Your task to perform on an android device: What's the weather going to be this weekend? Image 0: 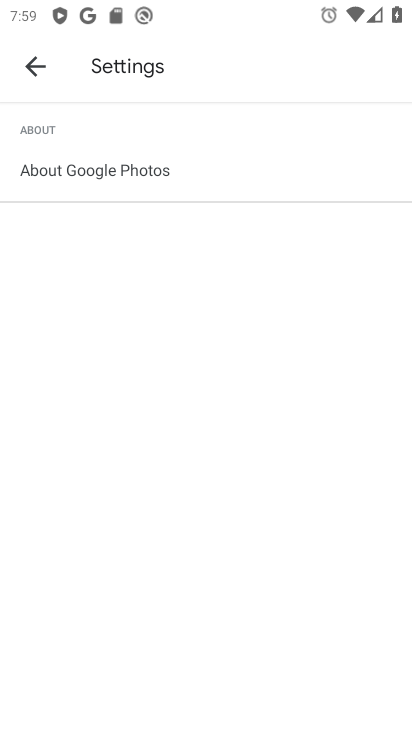
Step 0: press home button
Your task to perform on an android device: What's the weather going to be this weekend? Image 1: 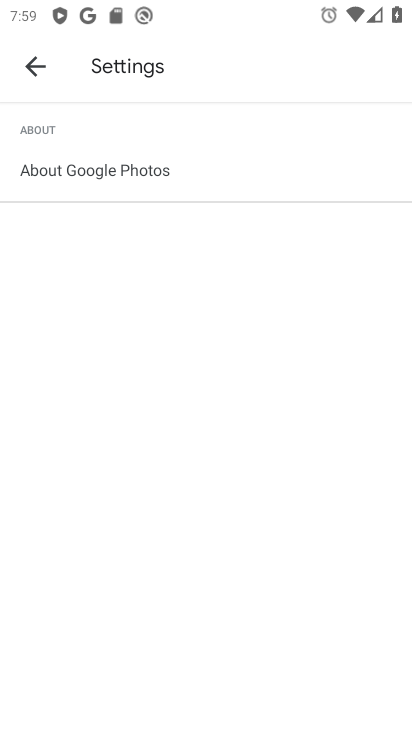
Step 1: press home button
Your task to perform on an android device: What's the weather going to be this weekend? Image 2: 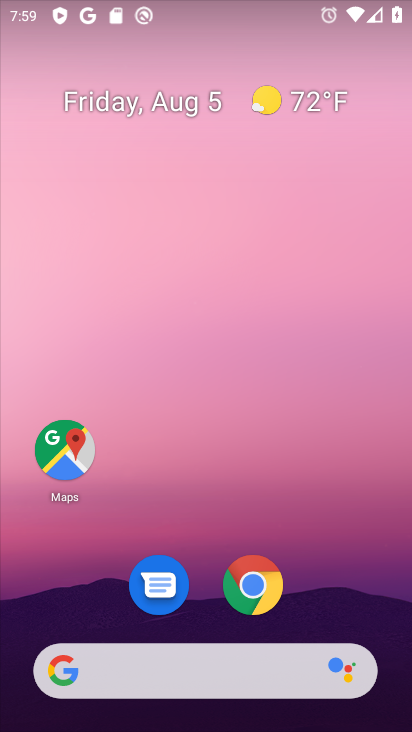
Step 2: click (293, 104)
Your task to perform on an android device: What's the weather going to be this weekend? Image 3: 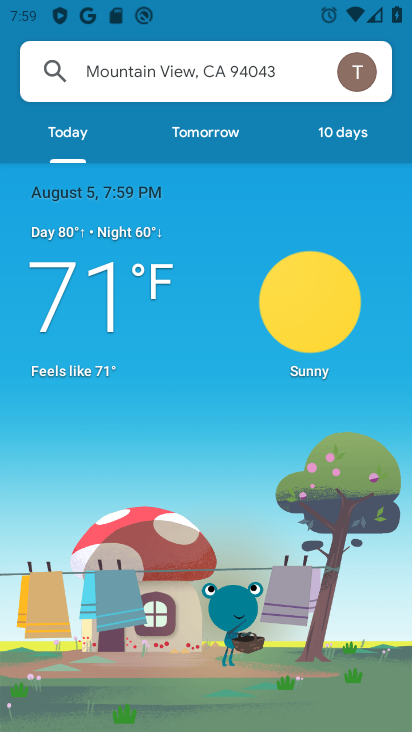
Step 3: click (319, 133)
Your task to perform on an android device: What's the weather going to be this weekend? Image 4: 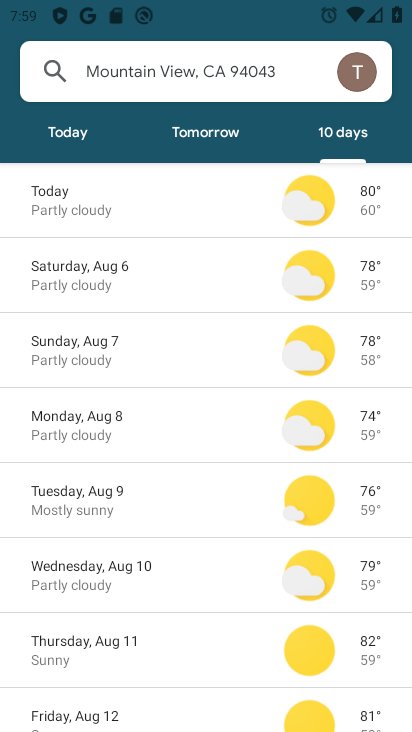
Step 4: click (90, 272)
Your task to perform on an android device: What's the weather going to be this weekend? Image 5: 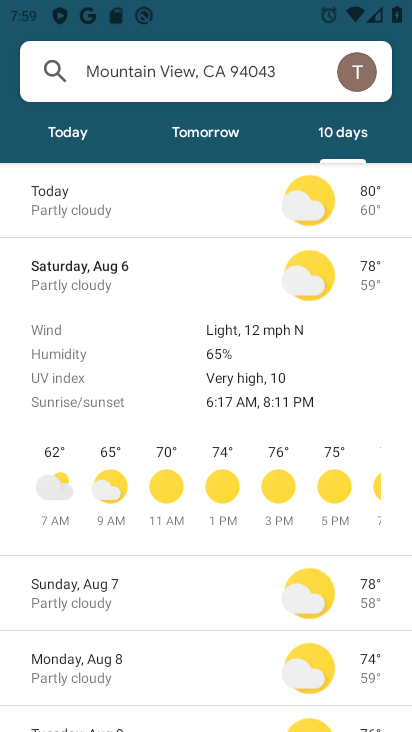
Step 5: task complete